Your task to perform on an android device: What's the weather today? Image 0: 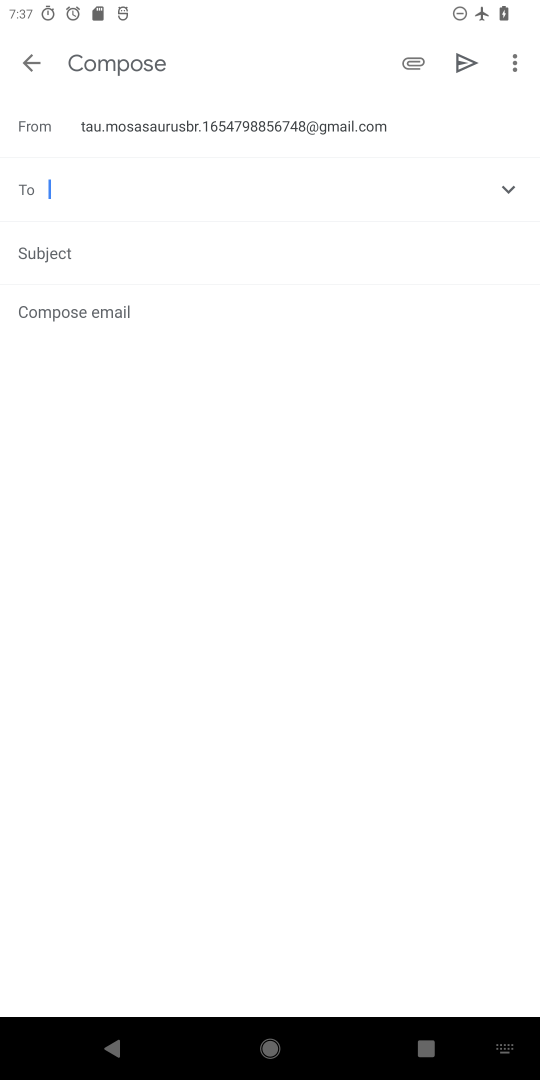
Step 0: press home button
Your task to perform on an android device: What's the weather today? Image 1: 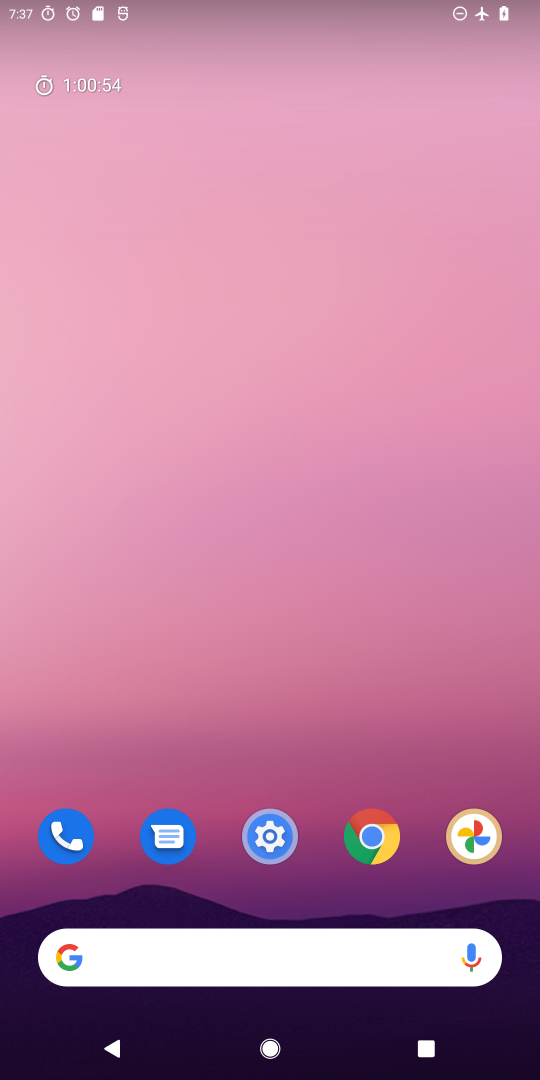
Step 1: drag from (311, 848) to (289, 178)
Your task to perform on an android device: What's the weather today? Image 2: 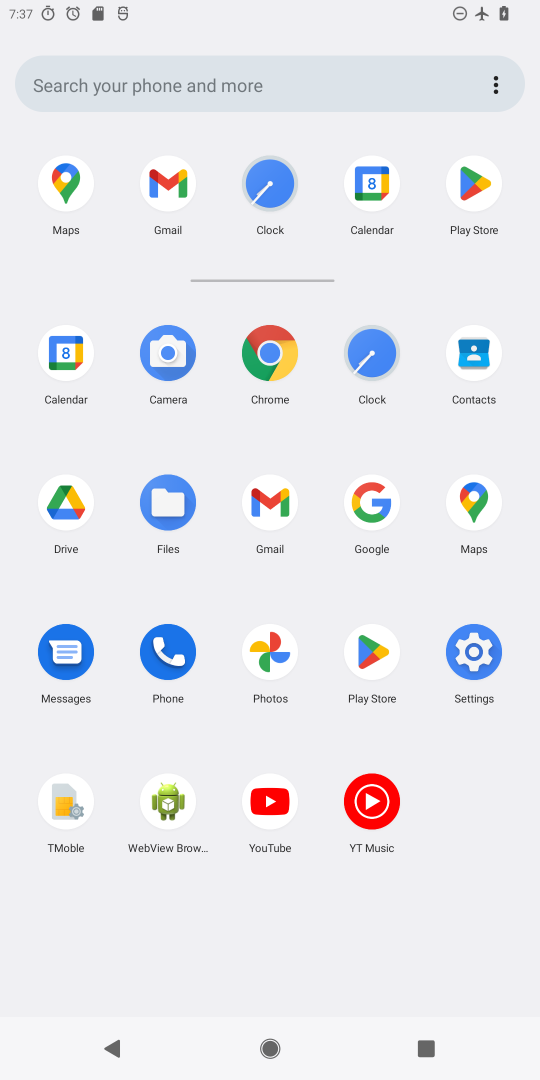
Step 2: click (270, 388)
Your task to perform on an android device: What's the weather today? Image 3: 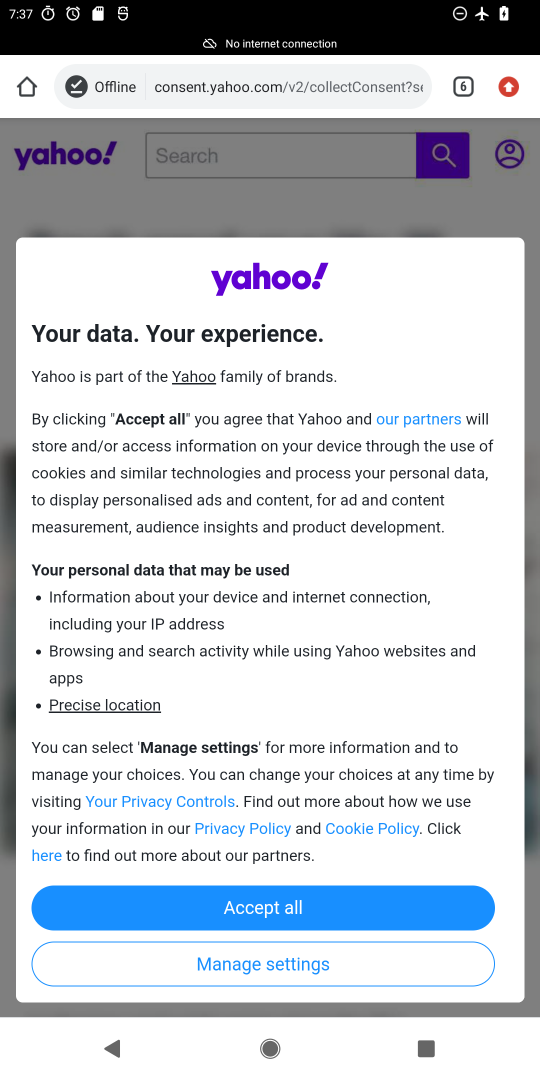
Step 3: click (306, 923)
Your task to perform on an android device: What's the weather today? Image 4: 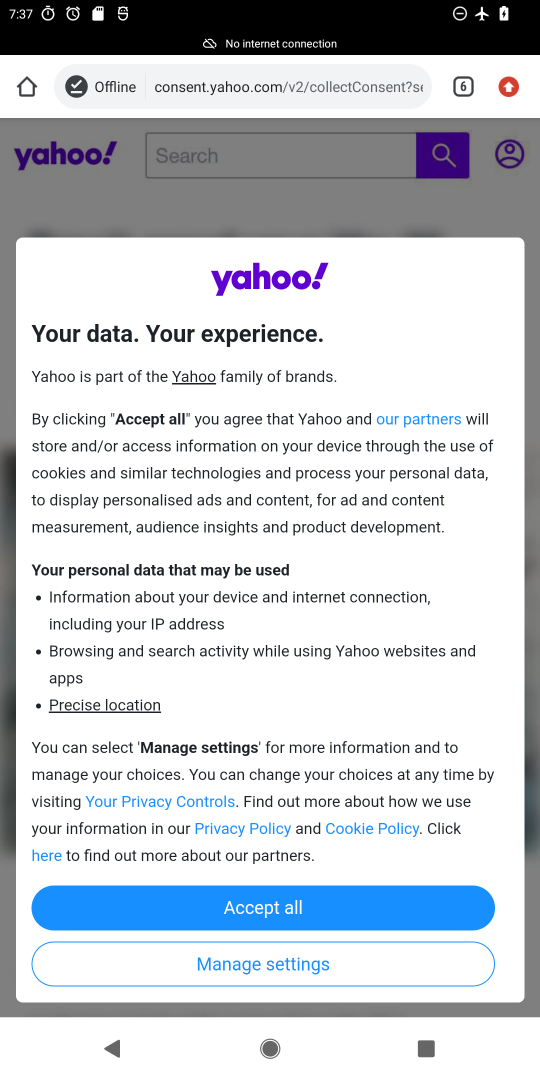
Step 4: click (306, 904)
Your task to perform on an android device: What's the weather today? Image 5: 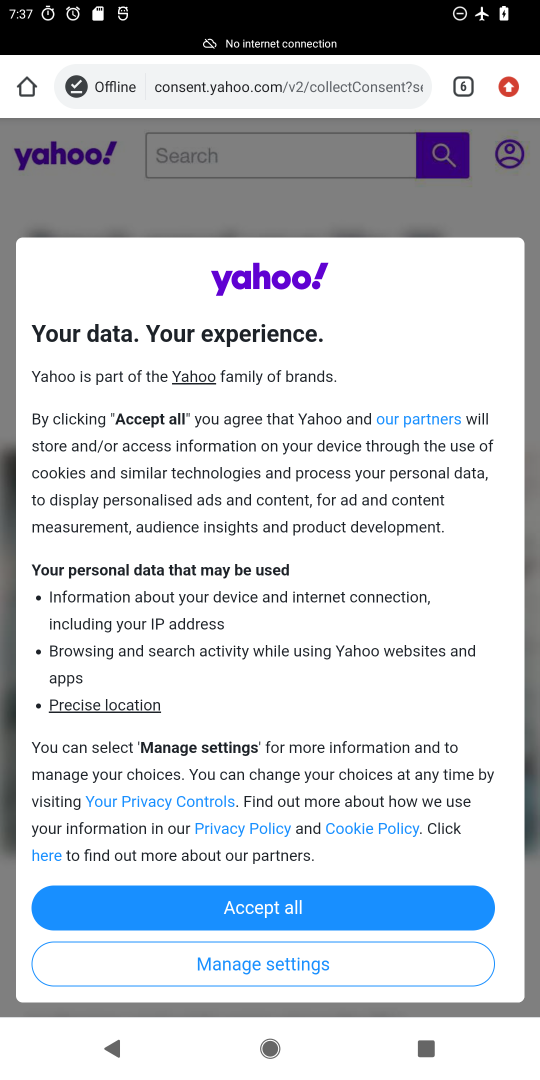
Step 5: click (306, 904)
Your task to perform on an android device: What's the weather today? Image 6: 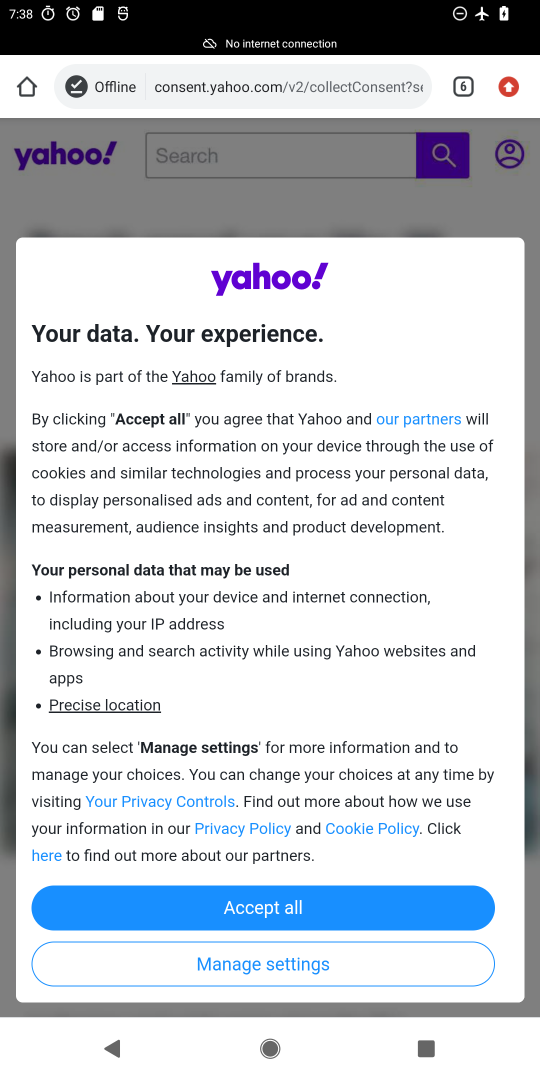
Step 6: click (306, 904)
Your task to perform on an android device: What's the weather today? Image 7: 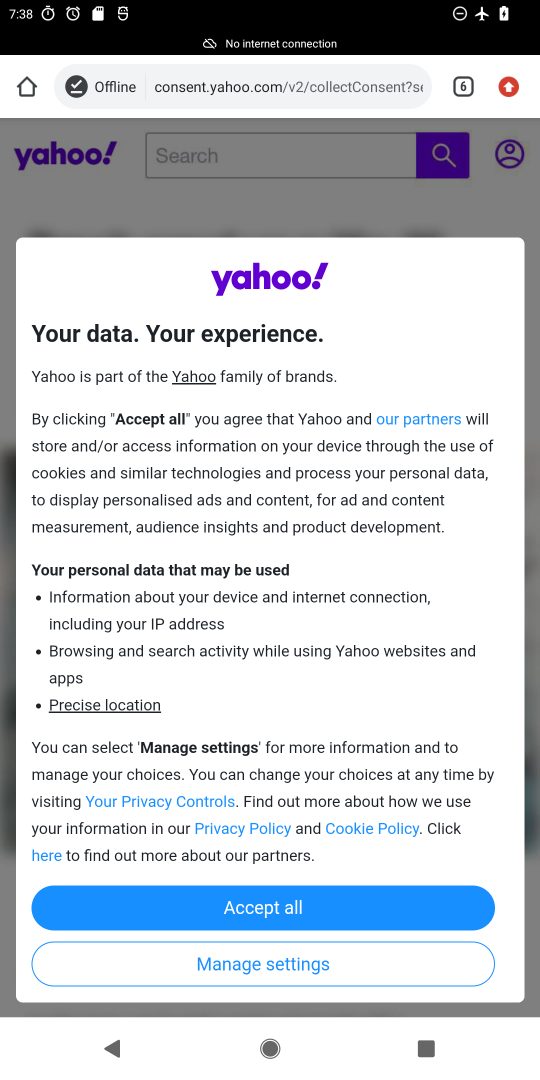
Step 7: press back button
Your task to perform on an android device: What's the weather today? Image 8: 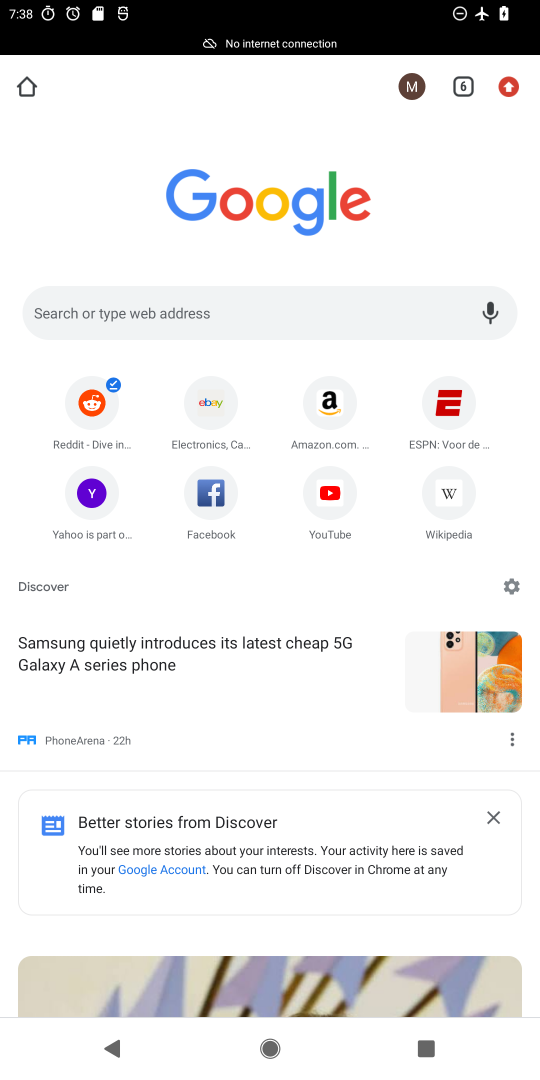
Step 8: click (273, 298)
Your task to perform on an android device: What's the weather today? Image 9: 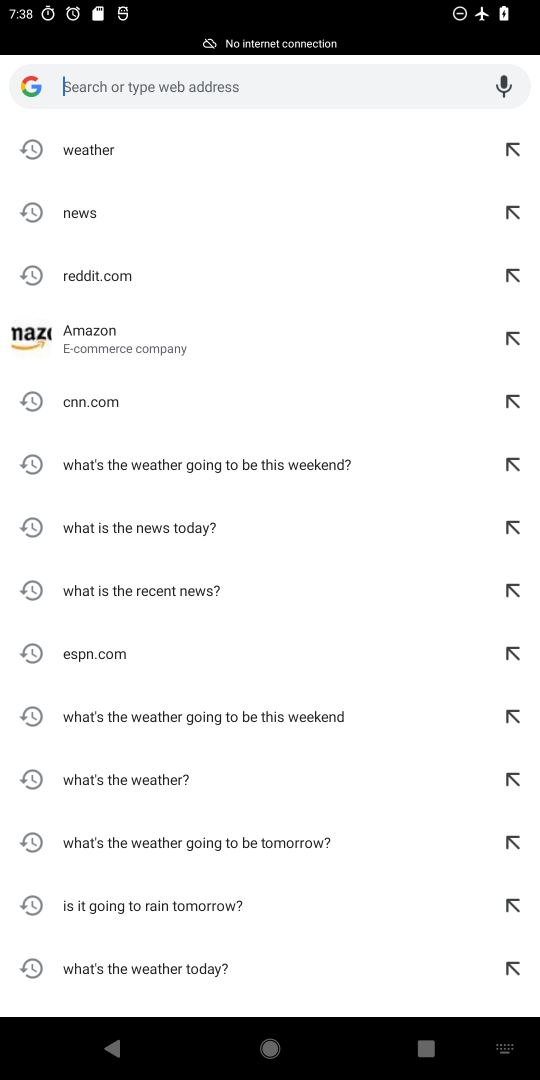
Step 9: click (306, 616)
Your task to perform on an android device: What's the weather today? Image 10: 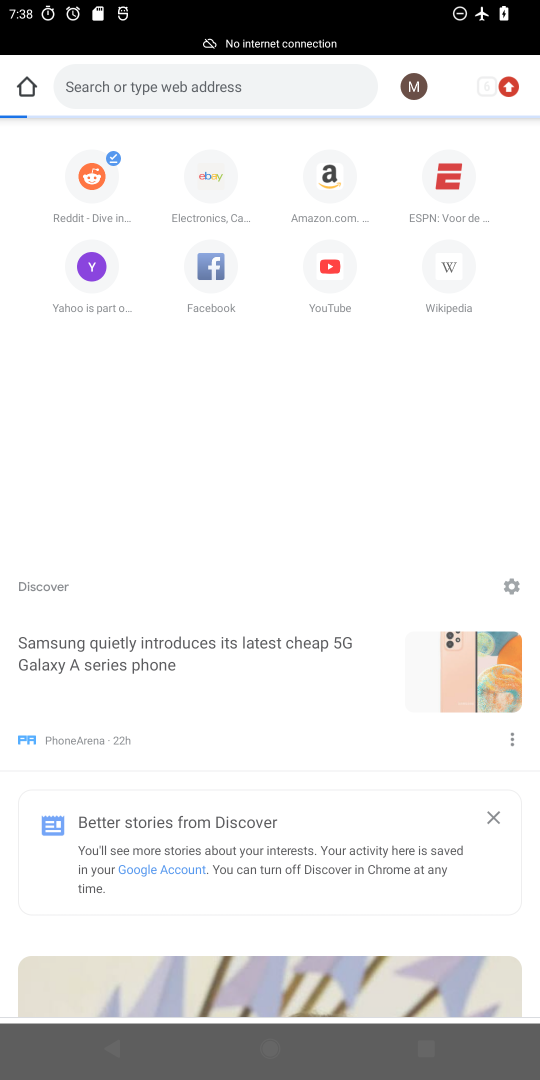
Step 10: click (159, 136)
Your task to perform on an android device: What's the weather today? Image 11: 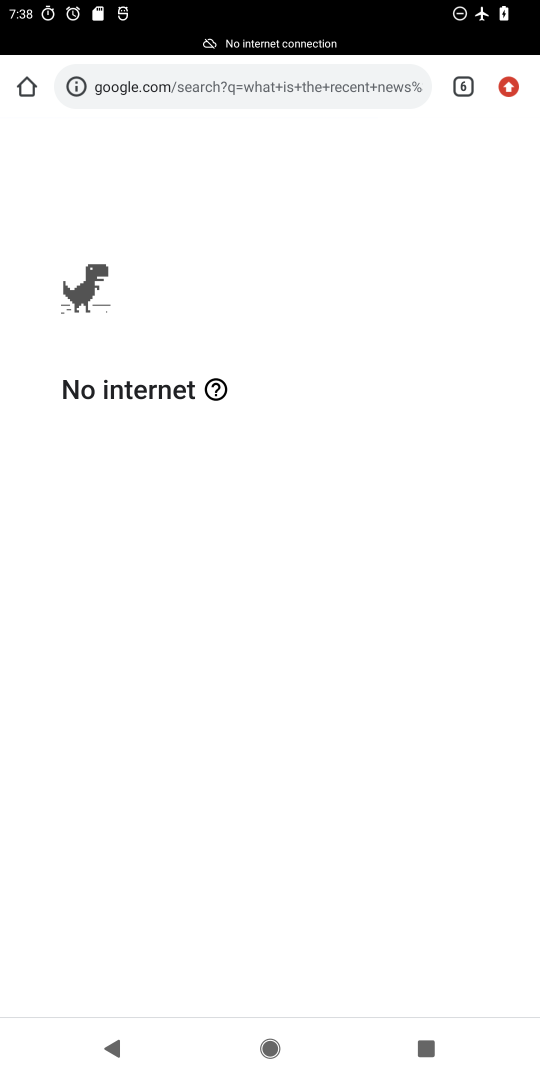
Step 11: task complete